Your task to perform on an android device: Clear the cart on ebay. Add lg ultragear to the cart on ebay Image 0: 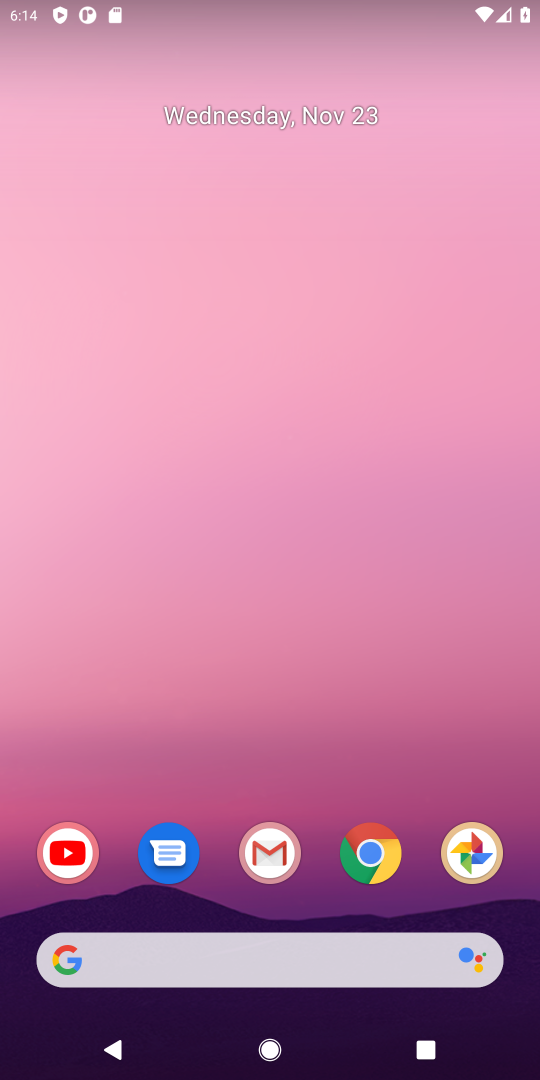
Step 0: click (355, 854)
Your task to perform on an android device: Clear the cart on ebay. Add lg ultragear to the cart on ebay Image 1: 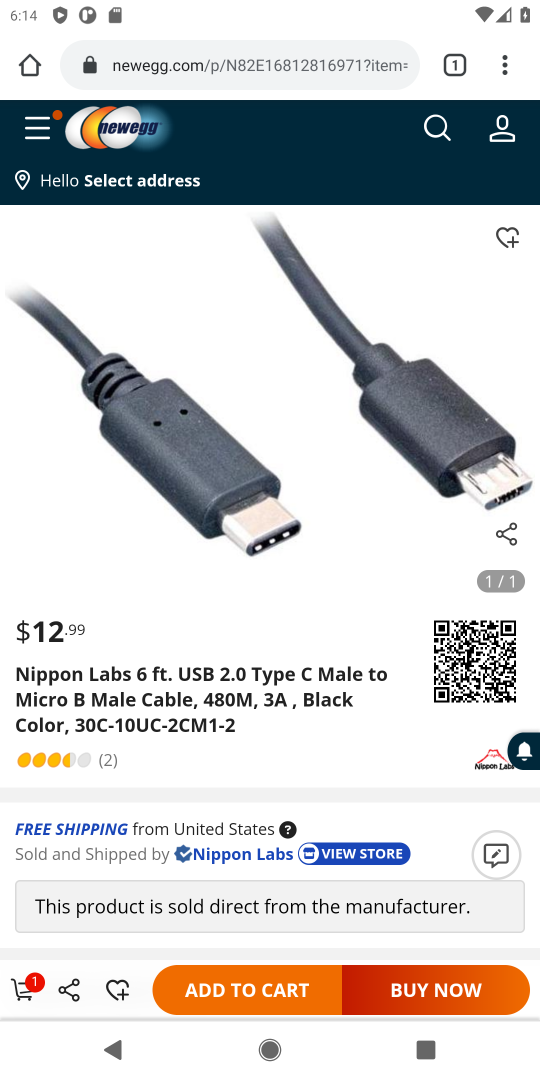
Step 1: click (184, 70)
Your task to perform on an android device: Clear the cart on ebay. Add lg ultragear to the cart on ebay Image 2: 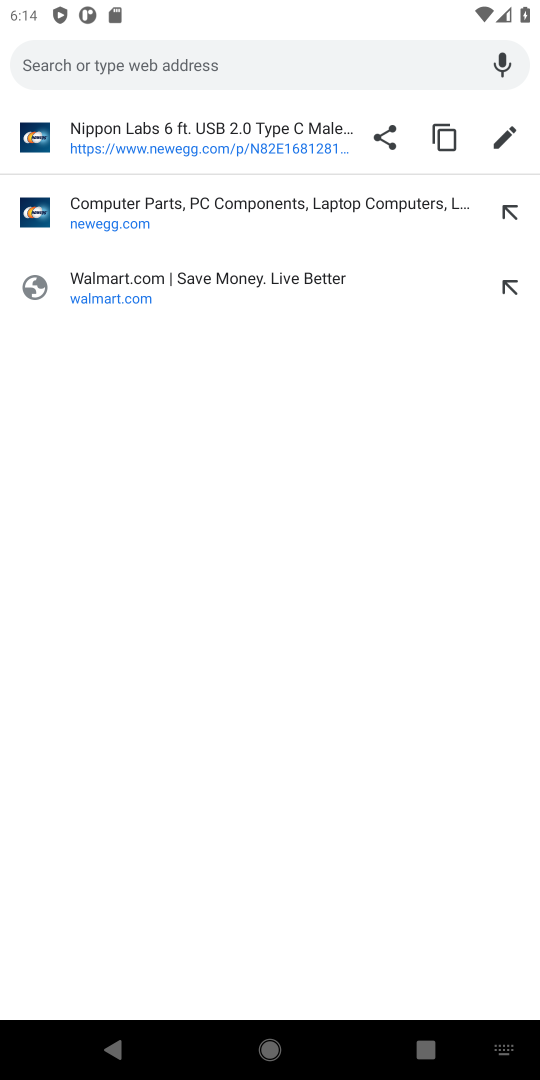
Step 2: type "ebay.com"
Your task to perform on an android device: Clear the cart on ebay. Add lg ultragear to the cart on ebay Image 3: 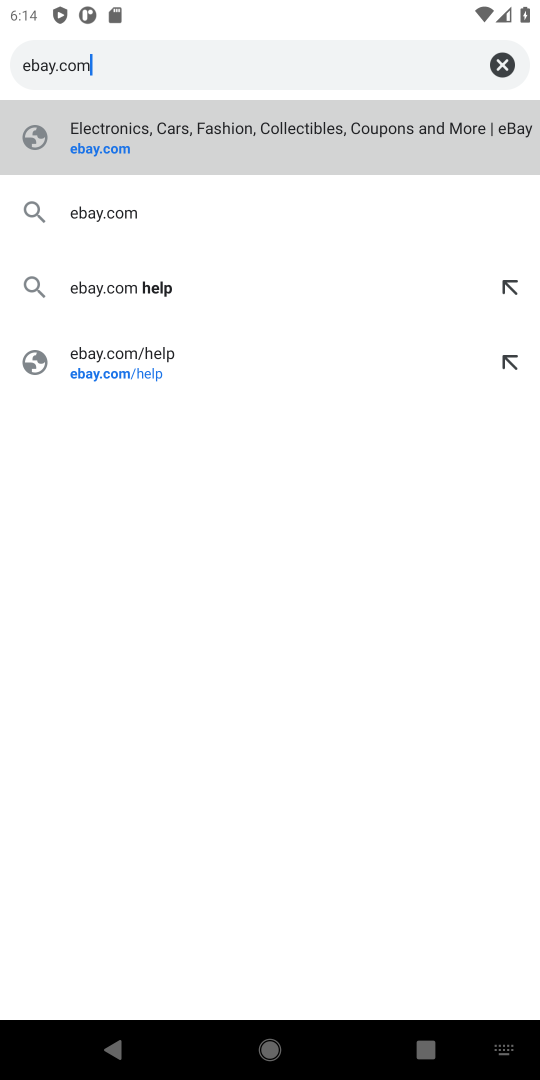
Step 3: click (89, 154)
Your task to perform on an android device: Clear the cart on ebay. Add lg ultragear to the cart on ebay Image 4: 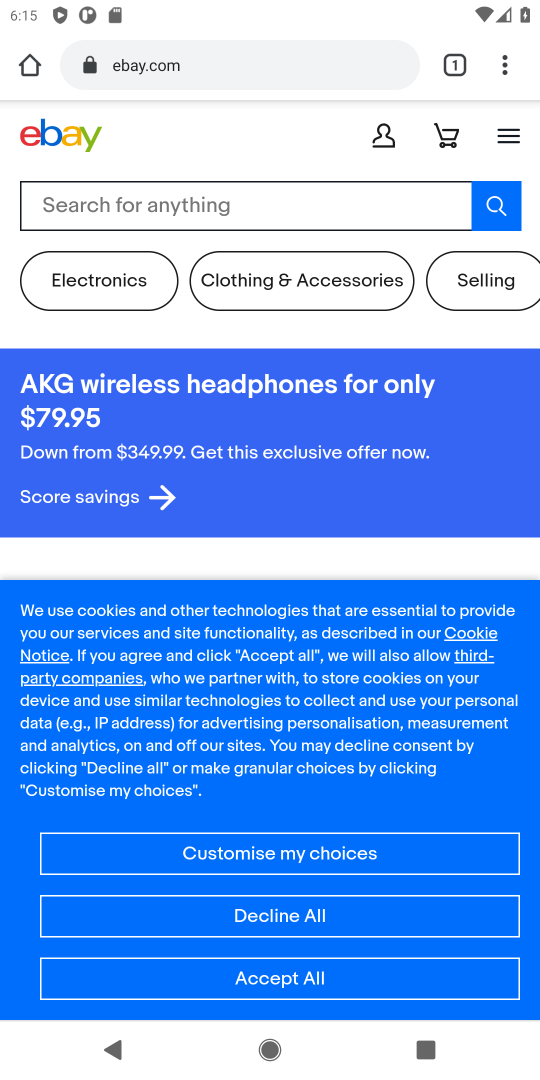
Step 4: click (451, 135)
Your task to perform on an android device: Clear the cart on ebay. Add lg ultragear to the cart on ebay Image 5: 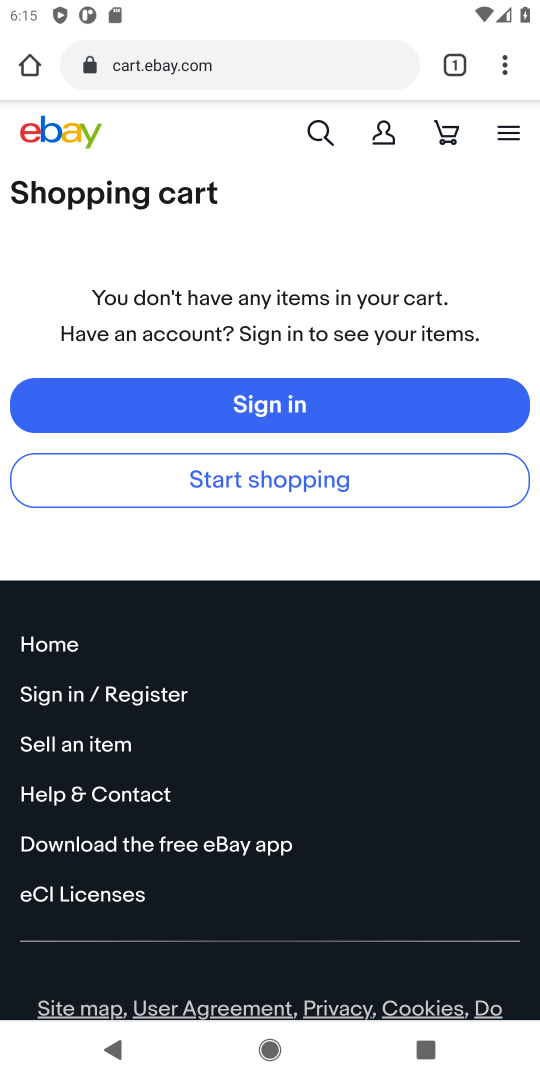
Step 5: click (317, 130)
Your task to perform on an android device: Clear the cart on ebay. Add lg ultragear to the cart on ebay Image 6: 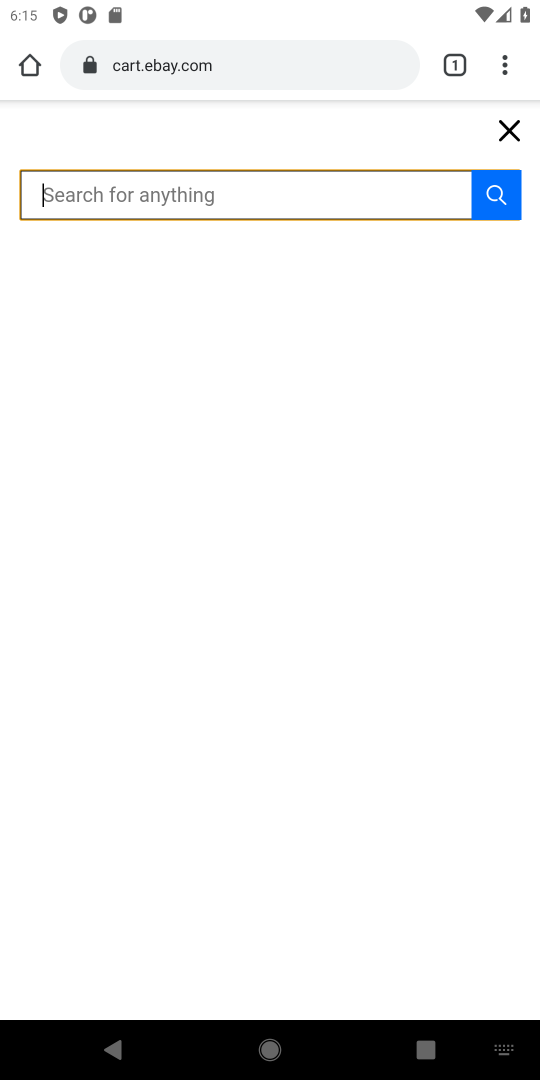
Step 6: type " lg ultragear"
Your task to perform on an android device: Clear the cart on ebay. Add lg ultragear to the cart on ebay Image 7: 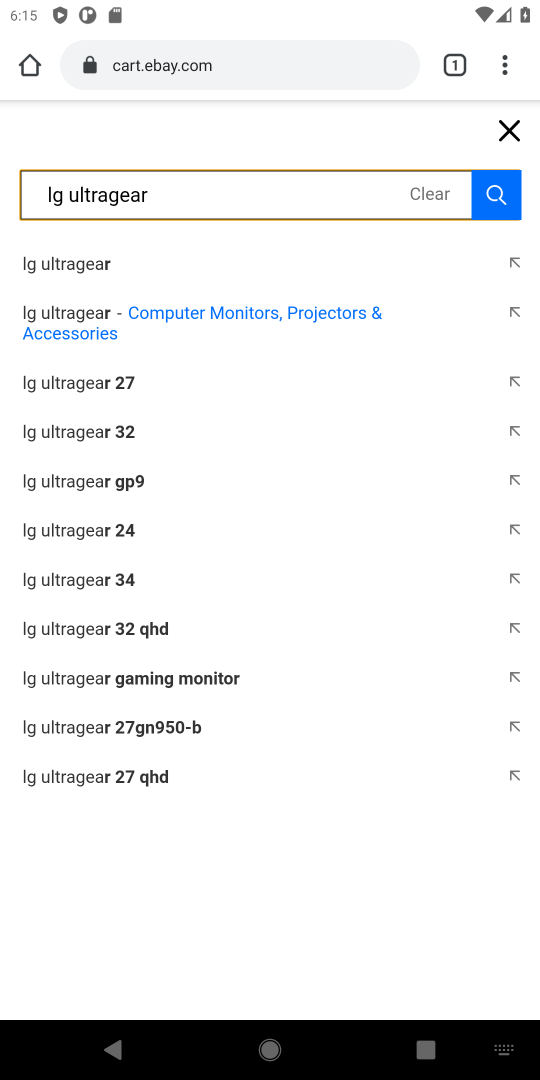
Step 7: click (65, 275)
Your task to perform on an android device: Clear the cart on ebay. Add lg ultragear to the cart on ebay Image 8: 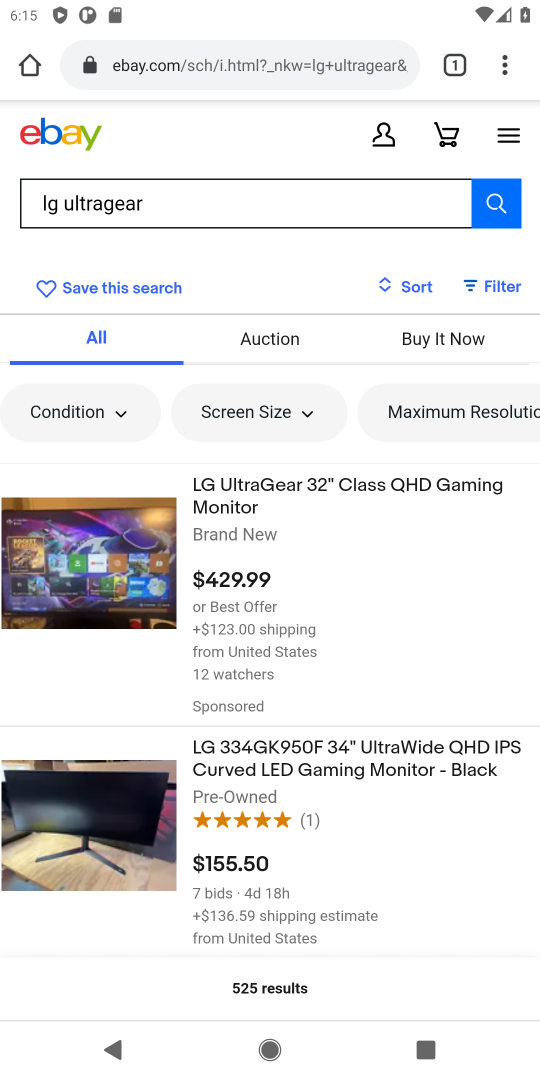
Step 8: click (44, 598)
Your task to perform on an android device: Clear the cart on ebay. Add lg ultragear to the cart on ebay Image 9: 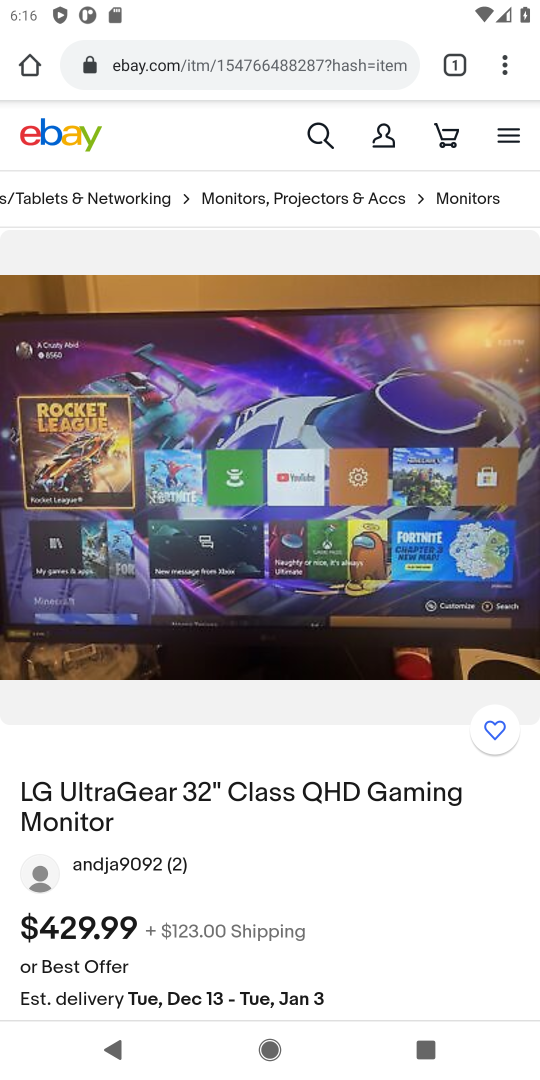
Step 9: drag from (174, 785) to (181, 366)
Your task to perform on an android device: Clear the cart on ebay. Add lg ultragear to the cart on ebay Image 10: 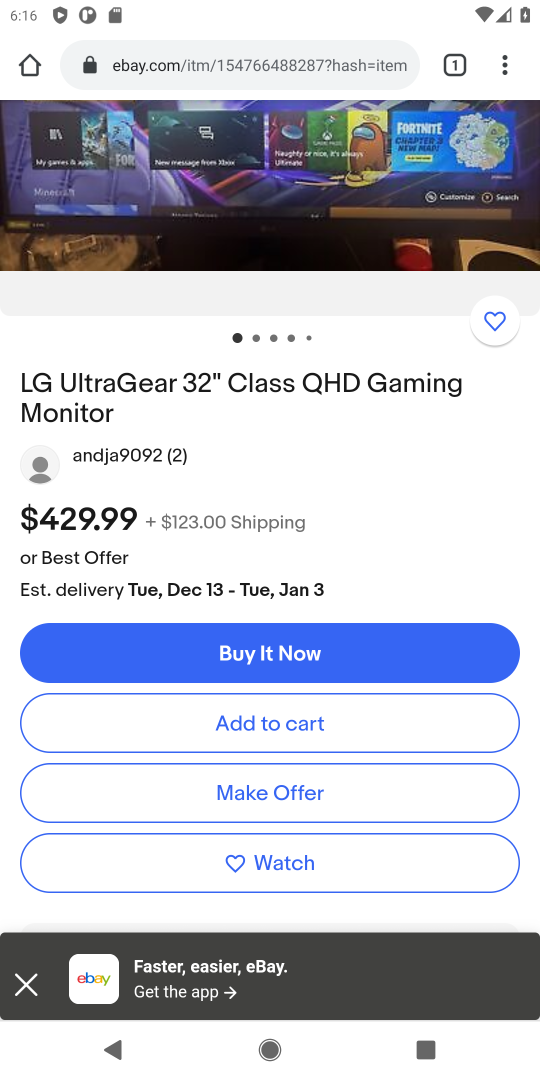
Step 10: click (222, 721)
Your task to perform on an android device: Clear the cart on ebay. Add lg ultragear to the cart on ebay Image 11: 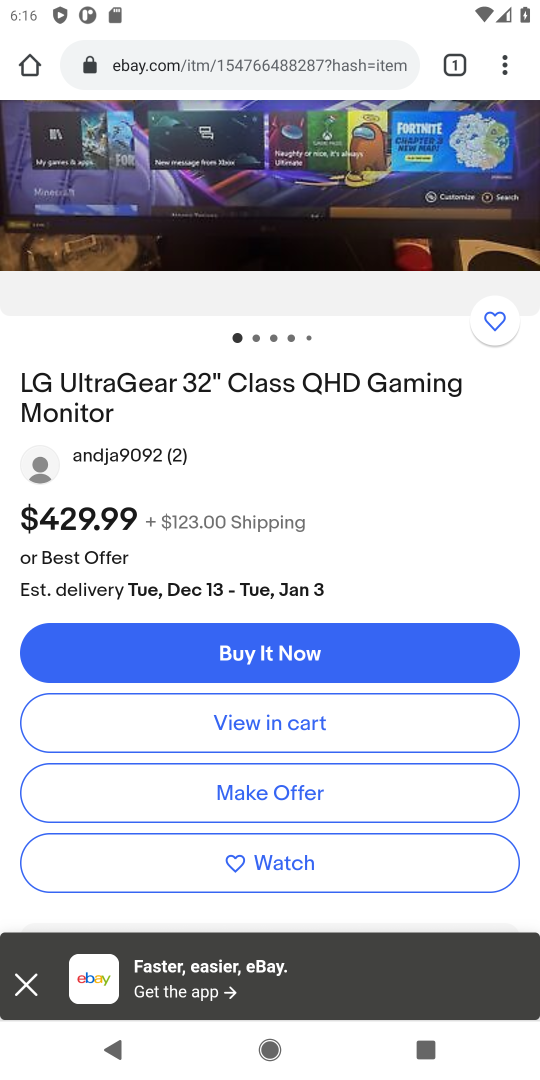
Step 11: task complete